Your task to perform on an android device: change the clock display to show seconds Image 0: 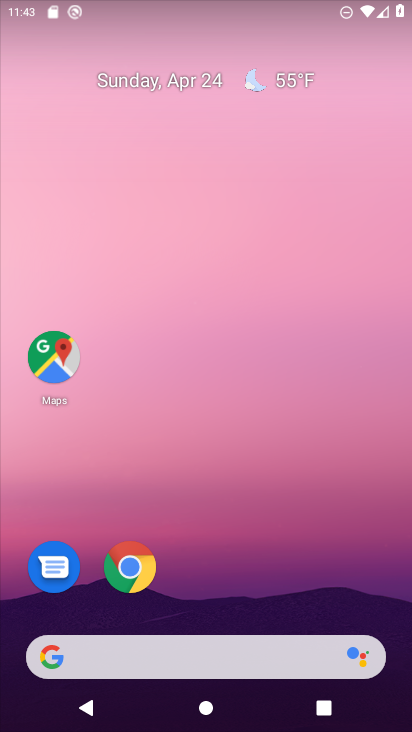
Step 0: click (389, 108)
Your task to perform on an android device: change the clock display to show seconds Image 1: 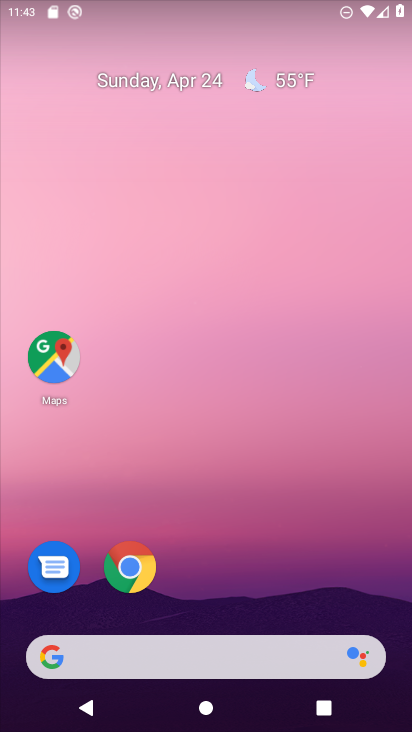
Step 1: drag from (384, 568) to (369, 253)
Your task to perform on an android device: change the clock display to show seconds Image 2: 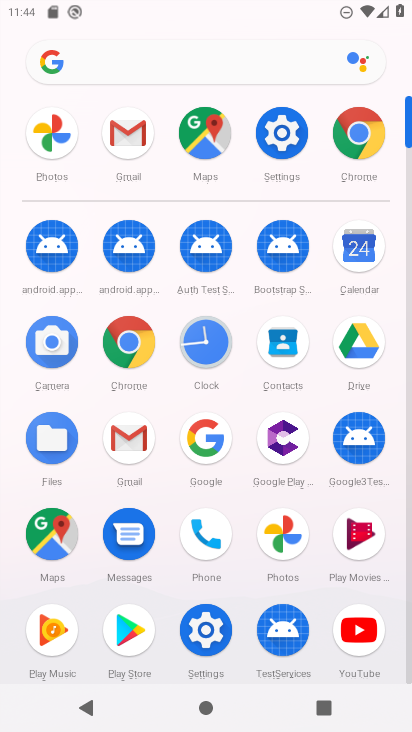
Step 2: click (279, 122)
Your task to perform on an android device: change the clock display to show seconds Image 3: 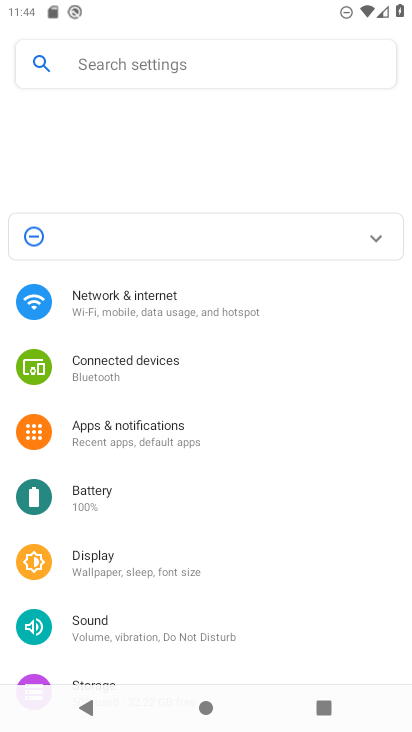
Step 3: press home button
Your task to perform on an android device: change the clock display to show seconds Image 4: 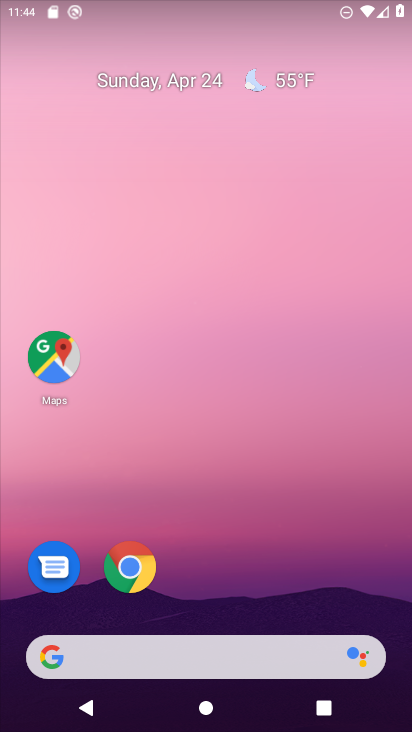
Step 4: click (362, 91)
Your task to perform on an android device: change the clock display to show seconds Image 5: 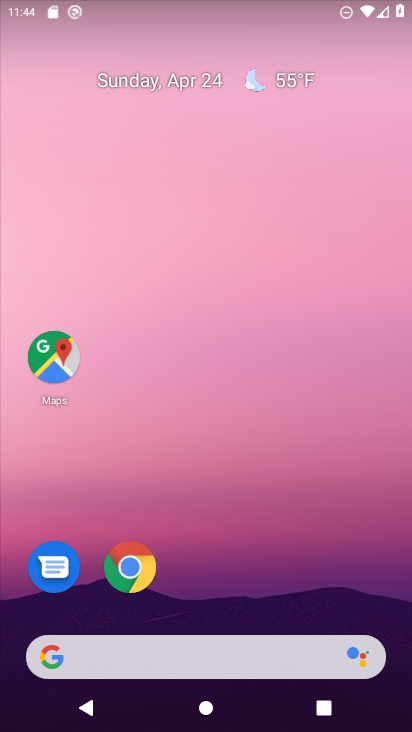
Step 5: drag from (365, 327) to (353, 137)
Your task to perform on an android device: change the clock display to show seconds Image 6: 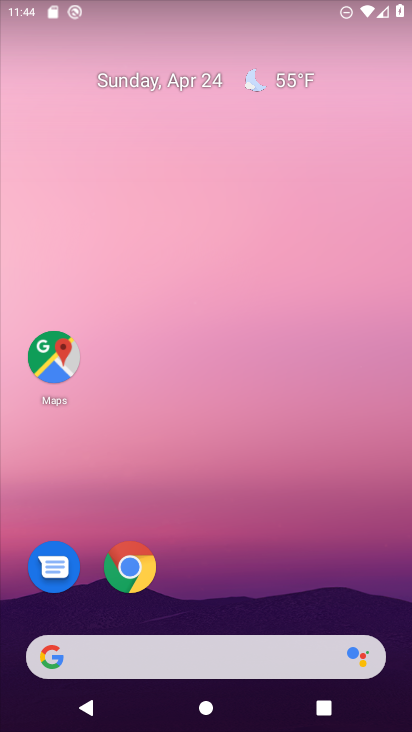
Step 6: drag from (394, 653) to (374, 367)
Your task to perform on an android device: change the clock display to show seconds Image 7: 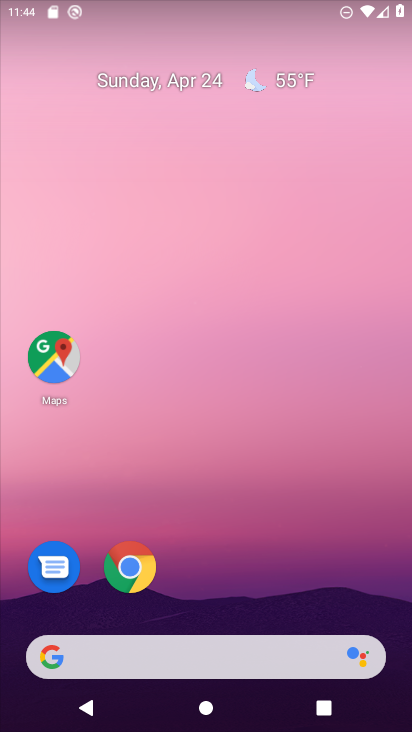
Step 7: drag from (400, 614) to (354, 144)
Your task to perform on an android device: change the clock display to show seconds Image 8: 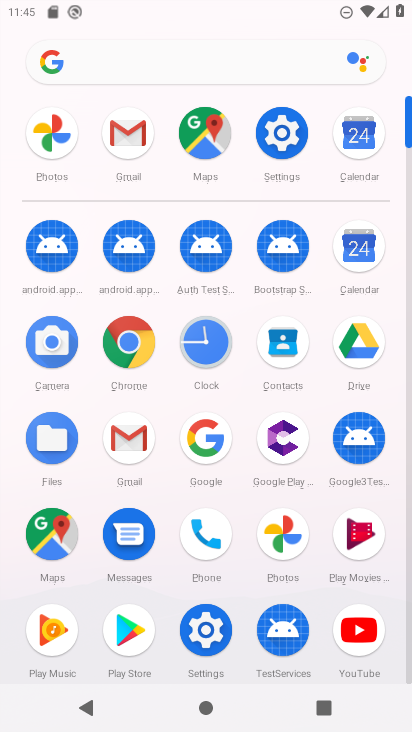
Step 8: click (205, 342)
Your task to perform on an android device: change the clock display to show seconds Image 9: 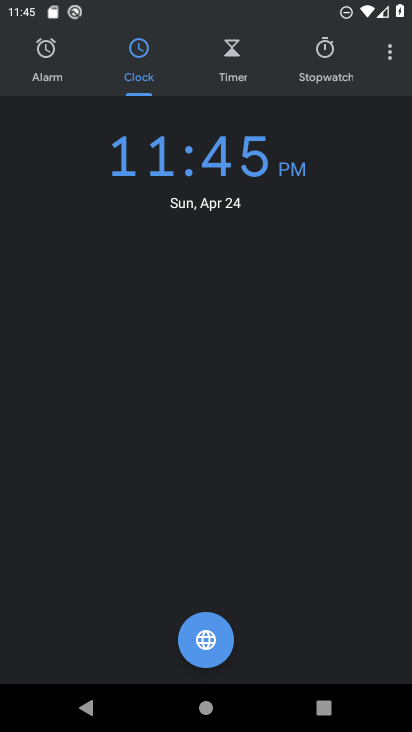
Step 9: click (387, 52)
Your task to perform on an android device: change the clock display to show seconds Image 10: 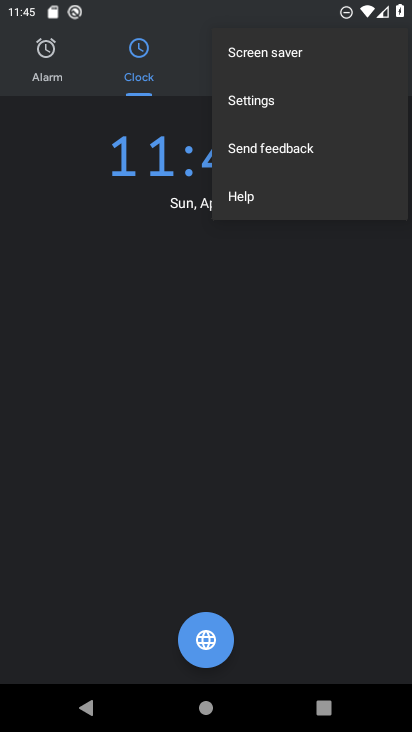
Step 10: click (264, 101)
Your task to perform on an android device: change the clock display to show seconds Image 11: 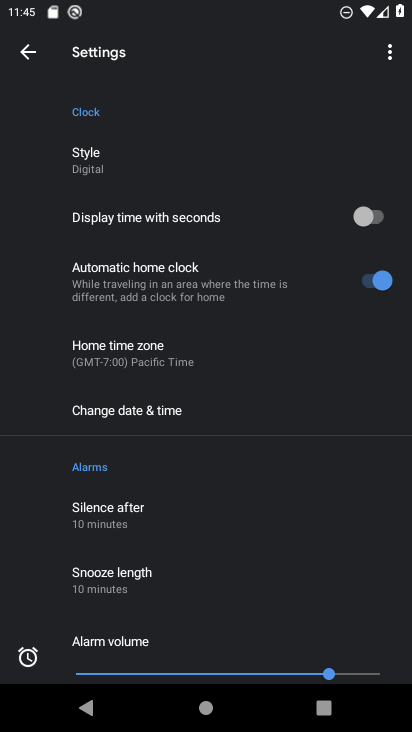
Step 11: click (374, 213)
Your task to perform on an android device: change the clock display to show seconds Image 12: 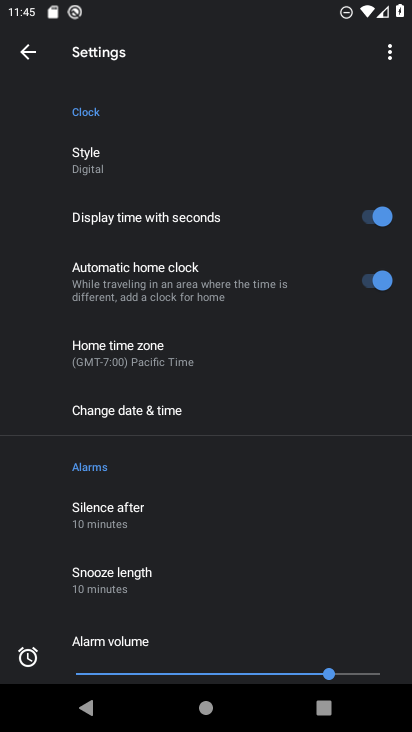
Step 12: task complete